Your task to perform on an android device: delete location history Image 0: 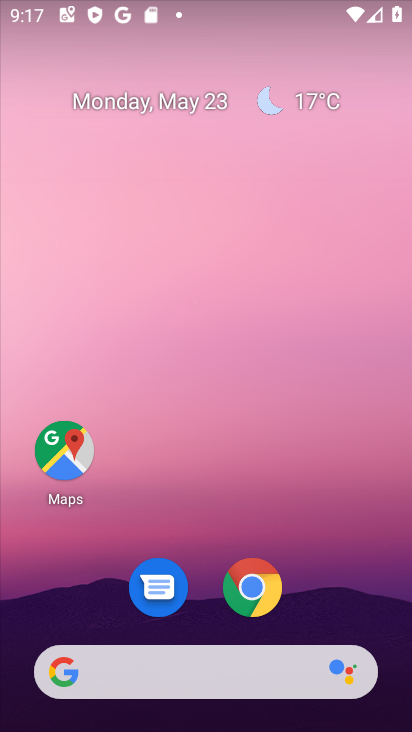
Step 0: click (62, 451)
Your task to perform on an android device: delete location history Image 1: 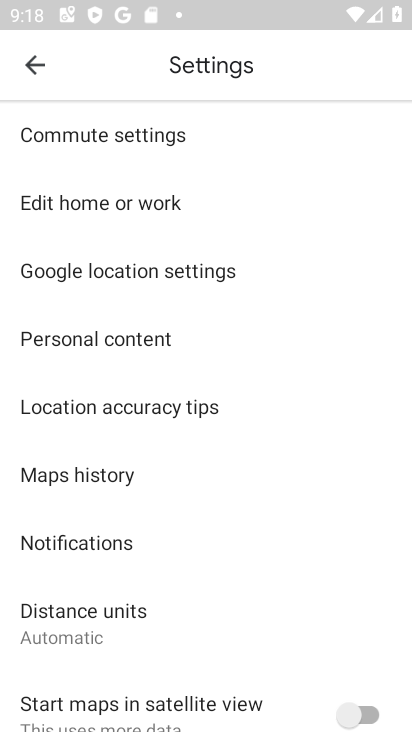
Step 1: click (28, 50)
Your task to perform on an android device: delete location history Image 2: 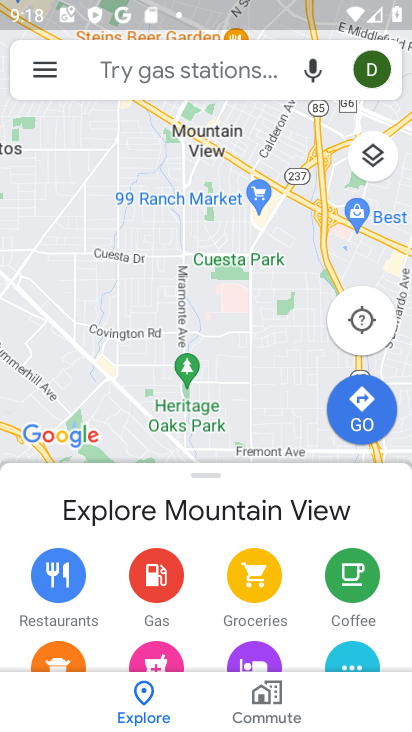
Step 2: click (34, 64)
Your task to perform on an android device: delete location history Image 3: 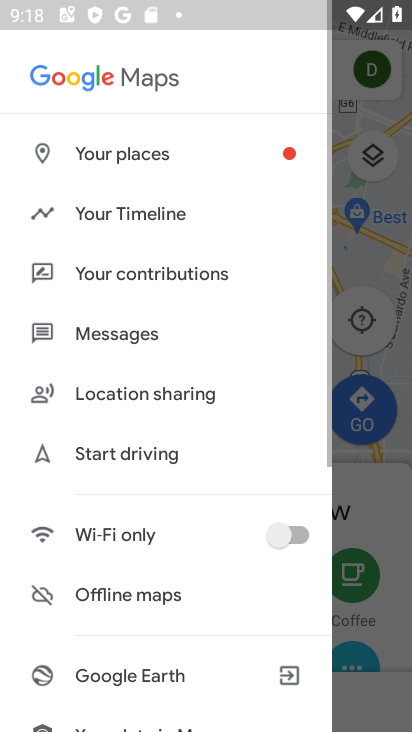
Step 3: click (183, 209)
Your task to perform on an android device: delete location history Image 4: 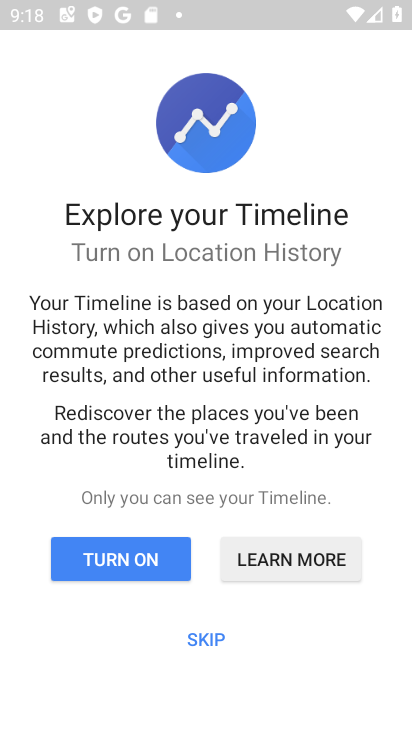
Step 4: click (205, 631)
Your task to perform on an android device: delete location history Image 5: 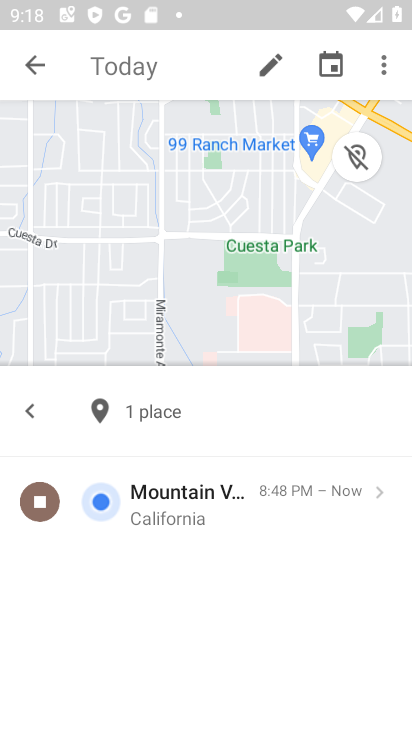
Step 5: click (383, 69)
Your task to perform on an android device: delete location history Image 6: 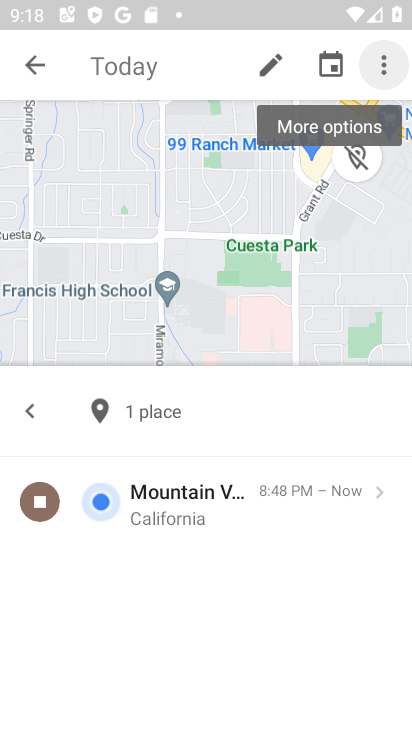
Step 6: click (383, 69)
Your task to perform on an android device: delete location history Image 7: 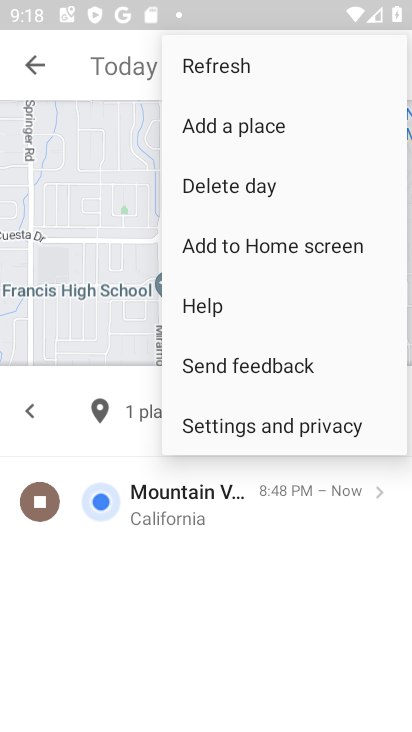
Step 7: click (251, 430)
Your task to perform on an android device: delete location history Image 8: 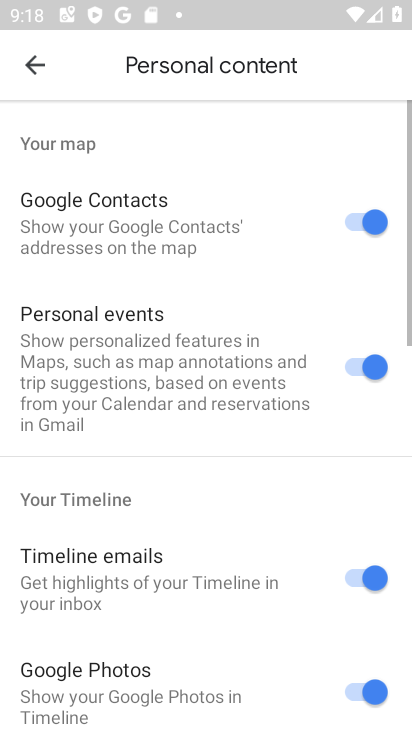
Step 8: drag from (188, 661) to (306, 9)
Your task to perform on an android device: delete location history Image 9: 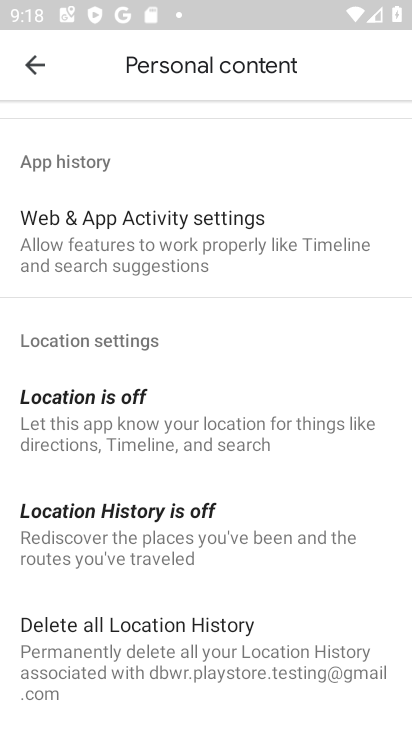
Step 9: click (80, 644)
Your task to perform on an android device: delete location history Image 10: 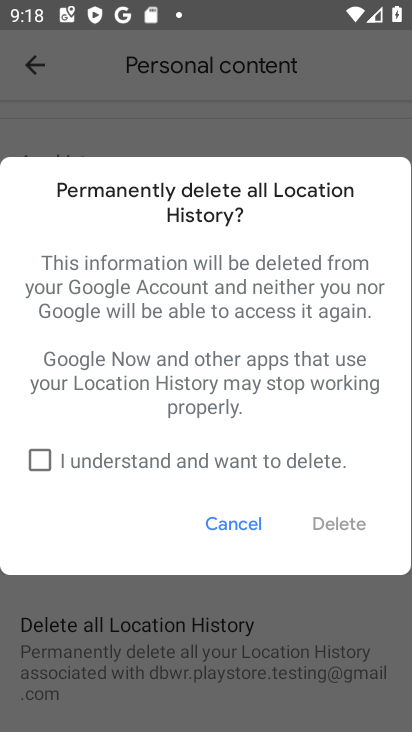
Step 10: click (33, 448)
Your task to perform on an android device: delete location history Image 11: 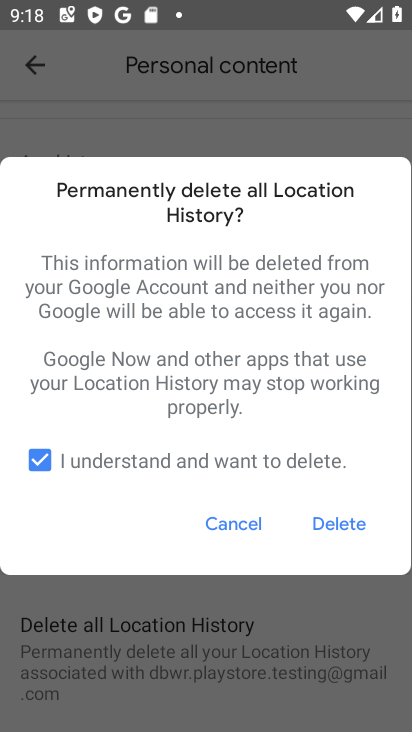
Step 11: click (339, 517)
Your task to perform on an android device: delete location history Image 12: 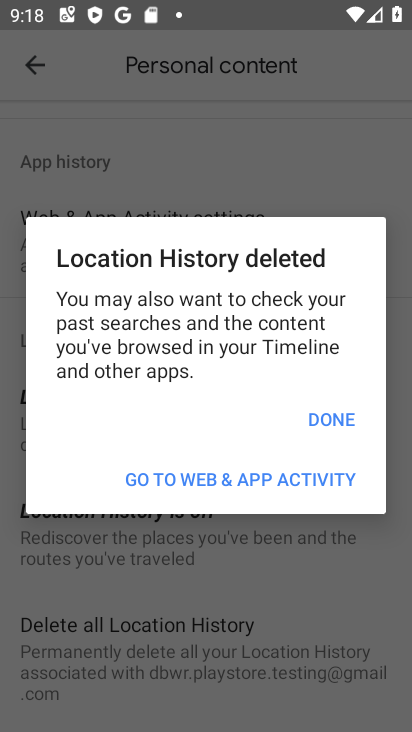
Step 12: click (318, 422)
Your task to perform on an android device: delete location history Image 13: 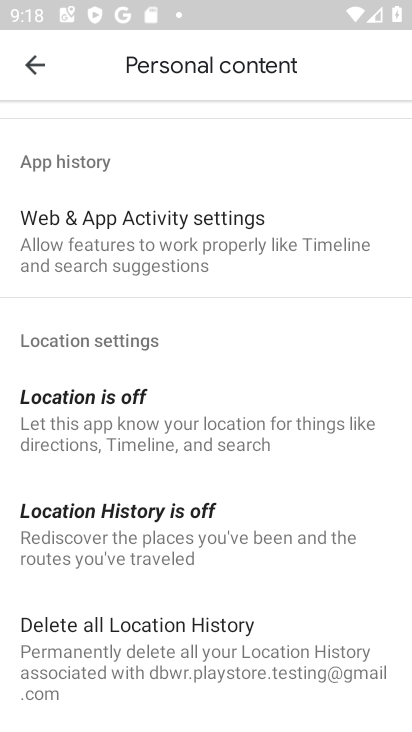
Step 13: task complete